Your task to perform on an android device: open app "Venmo" Image 0: 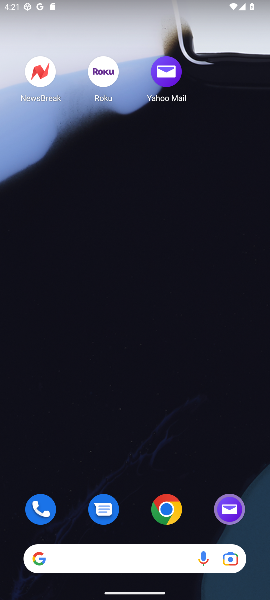
Step 0: drag from (130, 474) to (168, 51)
Your task to perform on an android device: open app "Venmo" Image 1: 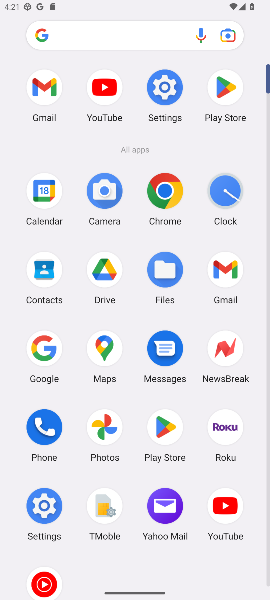
Step 1: click (223, 90)
Your task to perform on an android device: open app "Venmo" Image 2: 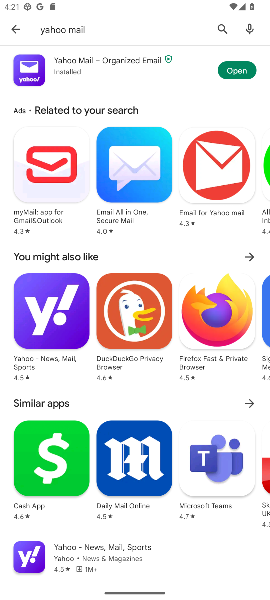
Step 2: click (221, 31)
Your task to perform on an android device: open app "Venmo" Image 3: 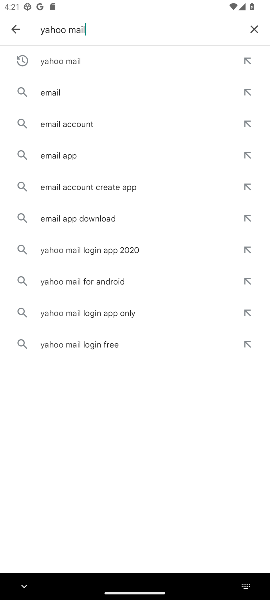
Step 3: click (257, 27)
Your task to perform on an android device: open app "Venmo" Image 4: 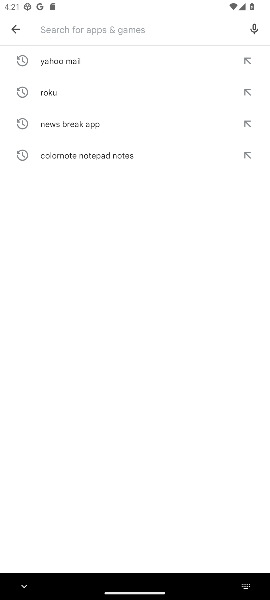
Step 4: click (162, 27)
Your task to perform on an android device: open app "Venmo" Image 5: 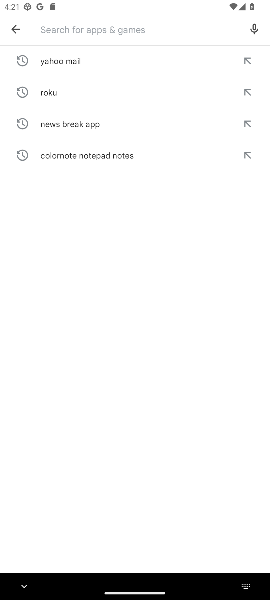
Step 5: type "venmo"
Your task to perform on an android device: open app "Venmo" Image 6: 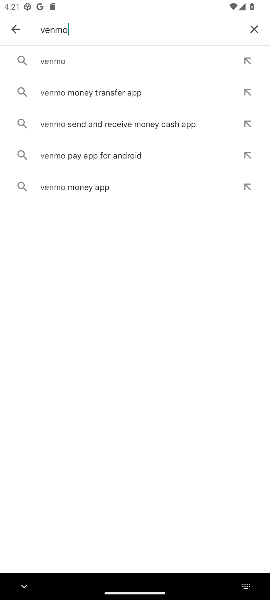
Step 6: click (73, 62)
Your task to perform on an android device: open app "Venmo" Image 7: 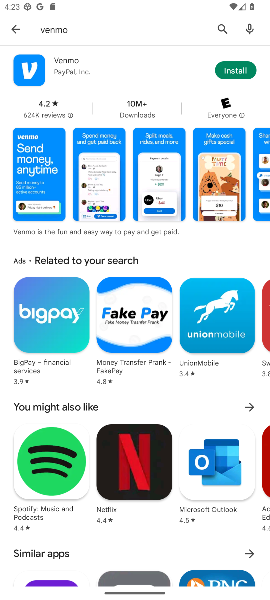
Step 7: task complete